Your task to perform on an android device: toggle pop-ups in chrome Image 0: 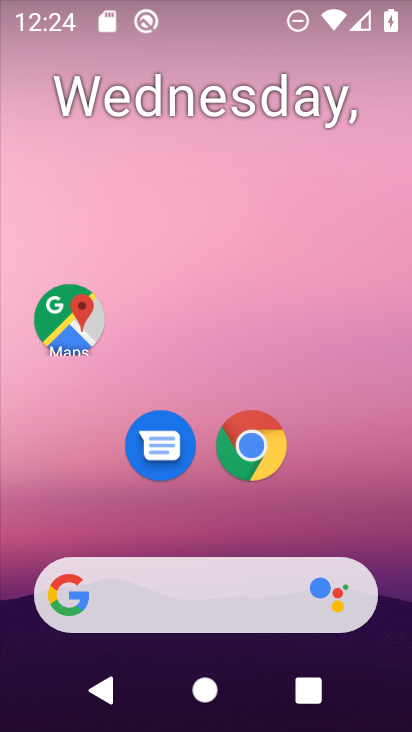
Step 0: drag from (386, 633) to (302, 41)
Your task to perform on an android device: toggle pop-ups in chrome Image 1: 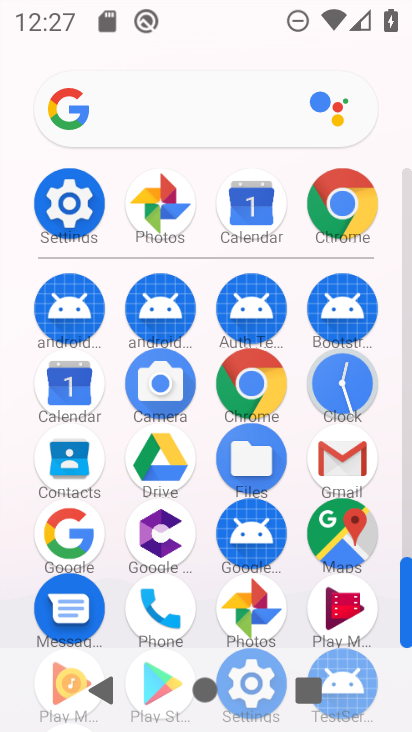
Step 1: click (248, 405)
Your task to perform on an android device: toggle pop-ups in chrome Image 2: 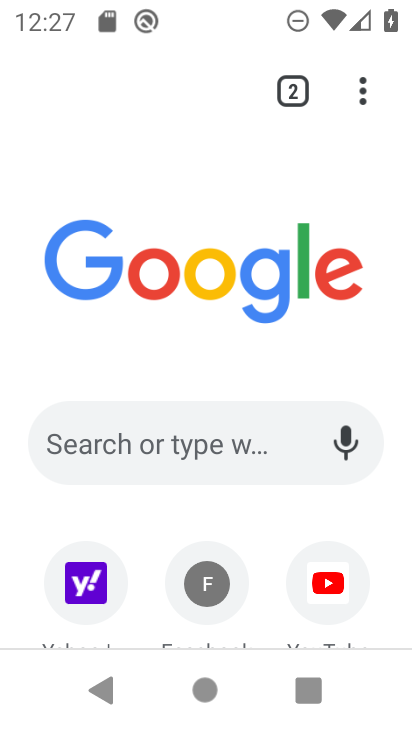
Step 2: click (373, 85)
Your task to perform on an android device: toggle pop-ups in chrome Image 3: 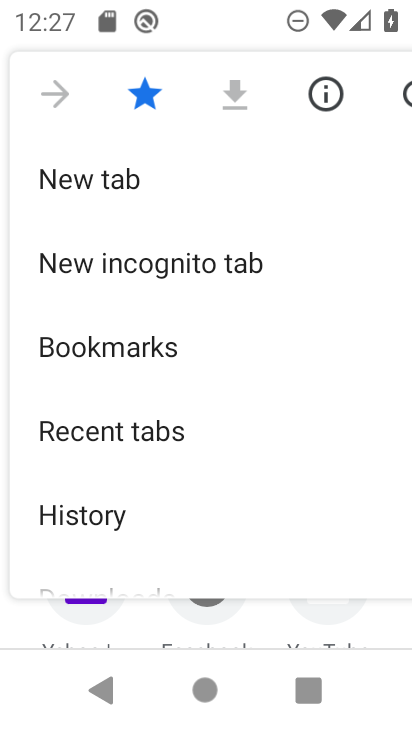
Step 3: drag from (153, 528) to (214, 58)
Your task to perform on an android device: toggle pop-ups in chrome Image 4: 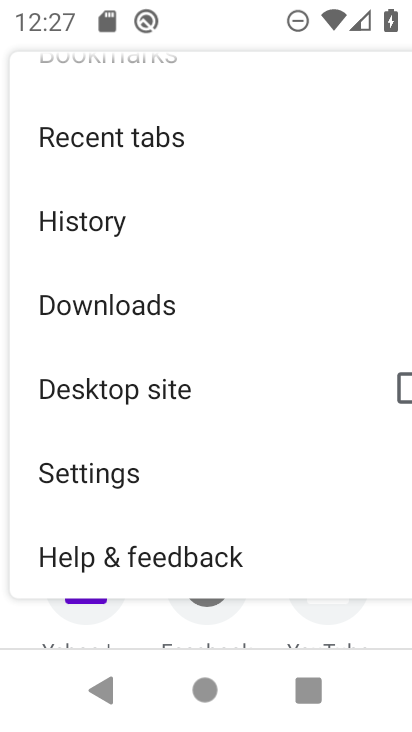
Step 4: click (136, 476)
Your task to perform on an android device: toggle pop-ups in chrome Image 5: 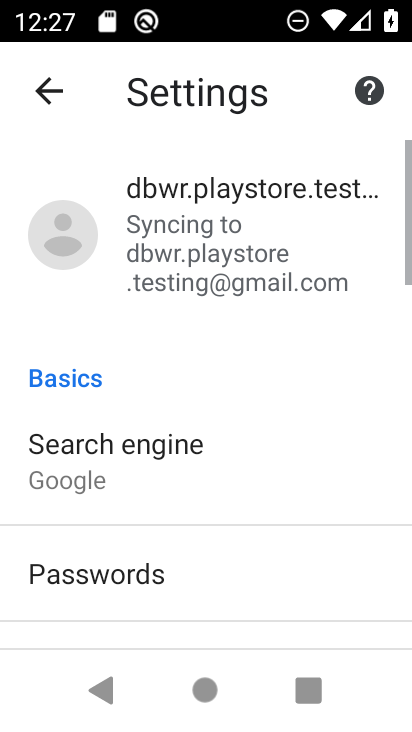
Step 5: drag from (174, 569) to (246, 102)
Your task to perform on an android device: toggle pop-ups in chrome Image 6: 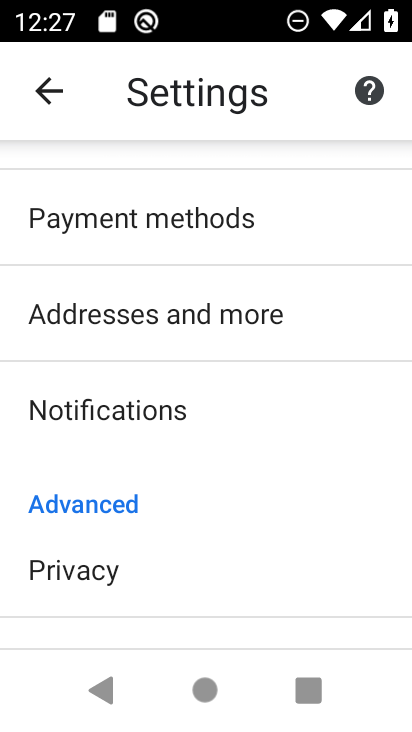
Step 6: drag from (141, 594) to (160, 142)
Your task to perform on an android device: toggle pop-ups in chrome Image 7: 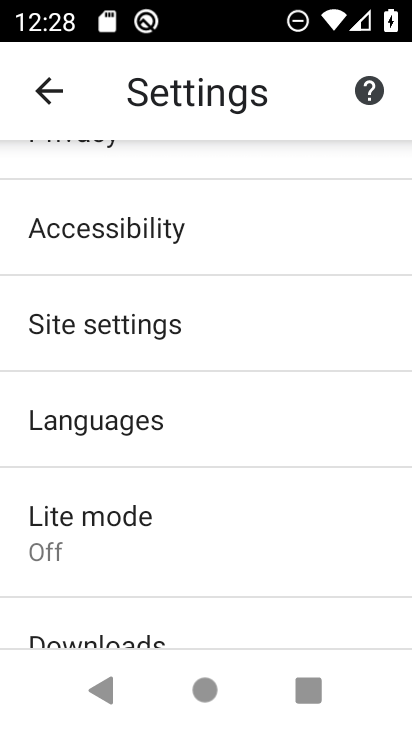
Step 7: click (214, 352)
Your task to perform on an android device: toggle pop-ups in chrome Image 8: 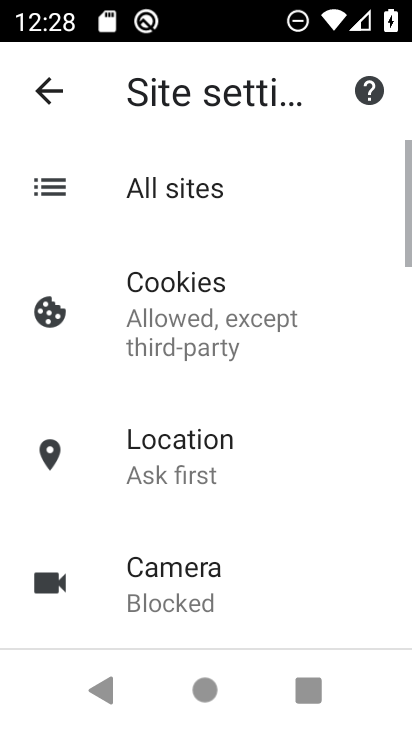
Step 8: drag from (207, 596) to (253, 99)
Your task to perform on an android device: toggle pop-ups in chrome Image 9: 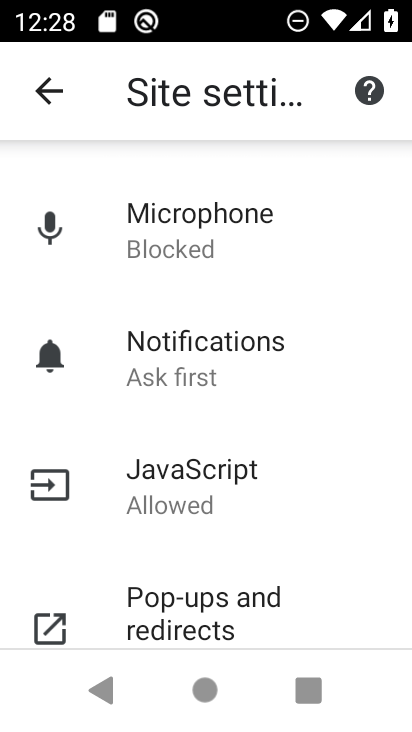
Step 9: click (235, 607)
Your task to perform on an android device: toggle pop-ups in chrome Image 10: 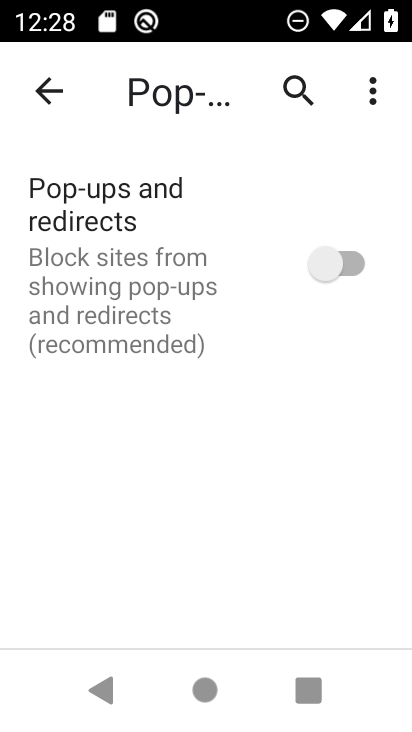
Step 10: click (351, 267)
Your task to perform on an android device: toggle pop-ups in chrome Image 11: 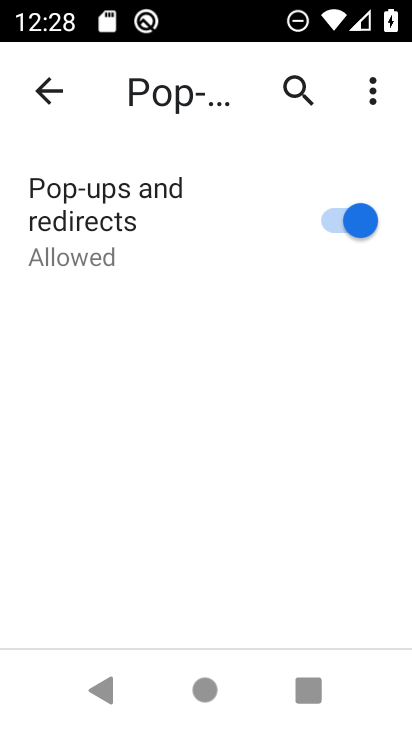
Step 11: task complete